Your task to perform on an android device: Go to settings Image 0: 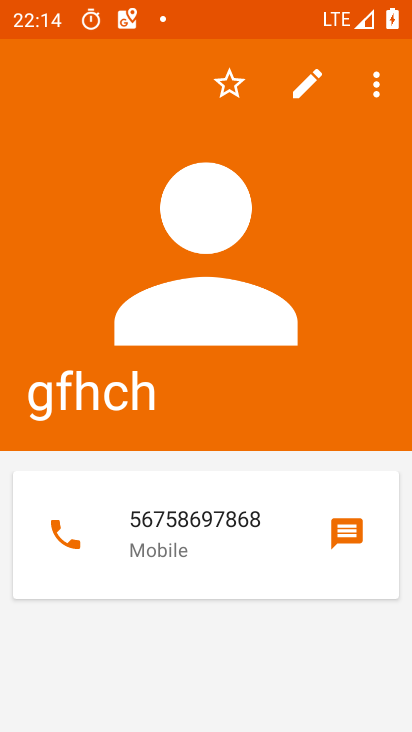
Step 0: press home button
Your task to perform on an android device: Go to settings Image 1: 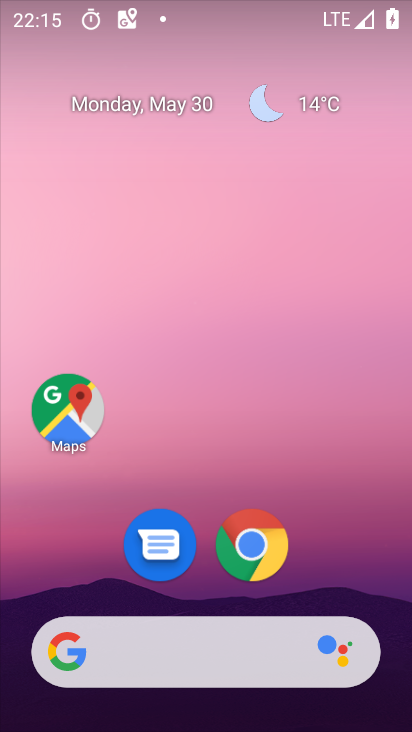
Step 1: drag from (300, 551) to (250, 53)
Your task to perform on an android device: Go to settings Image 2: 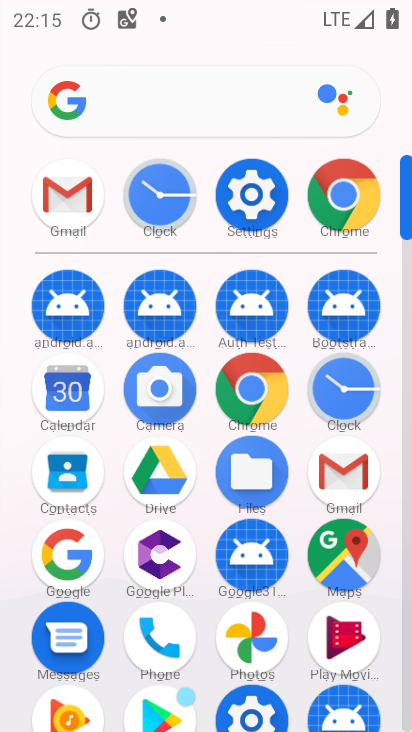
Step 2: click (248, 203)
Your task to perform on an android device: Go to settings Image 3: 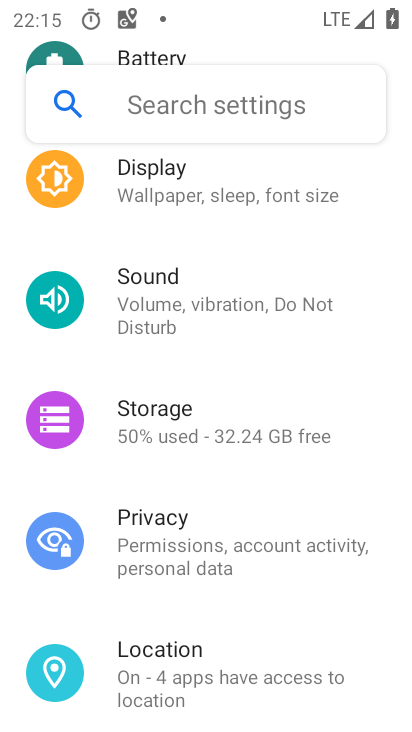
Step 3: task complete